Your task to perform on an android device: Go to privacy settings Image 0: 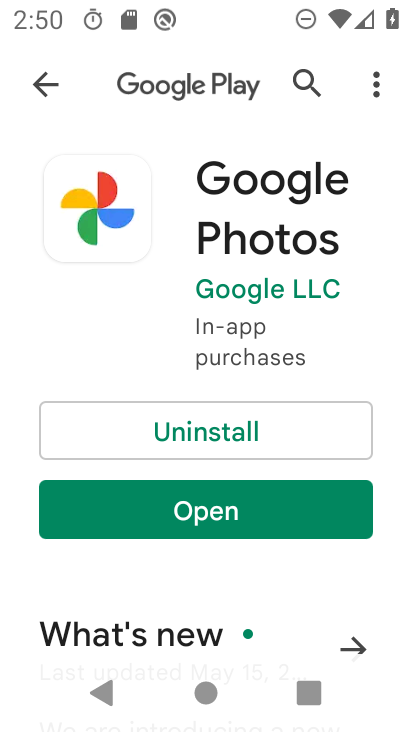
Step 0: press home button
Your task to perform on an android device: Go to privacy settings Image 1: 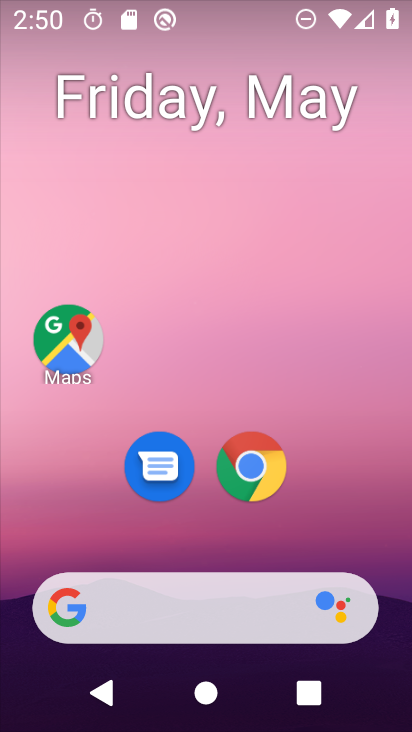
Step 1: drag from (341, 523) to (339, 49)
Your task to perform on an android device: Go to privacy settings Image 2: 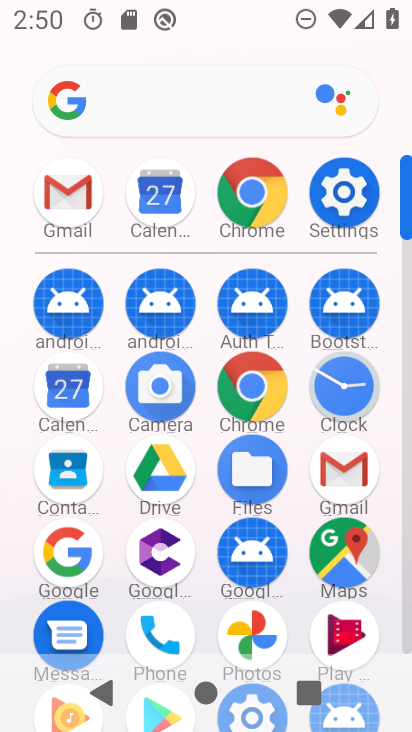
Step 2: click (345, 165)
Your task to perform on an android device: Go to privacy settings Image 3: 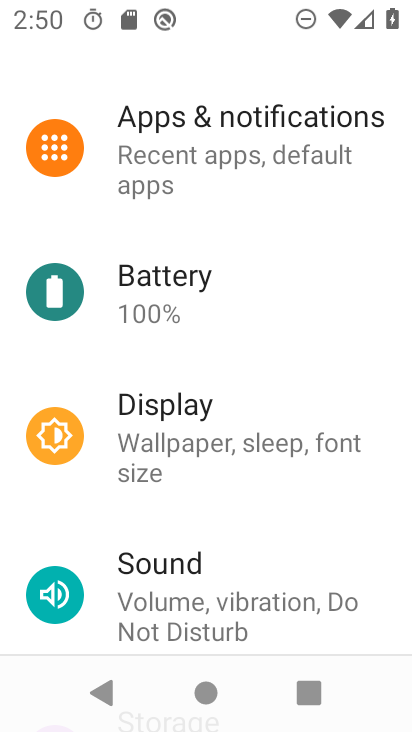
Step 3: drag from (277, 593) to (296, 147)
Your task to perform on an android device: Go to privacy settings Image 4: 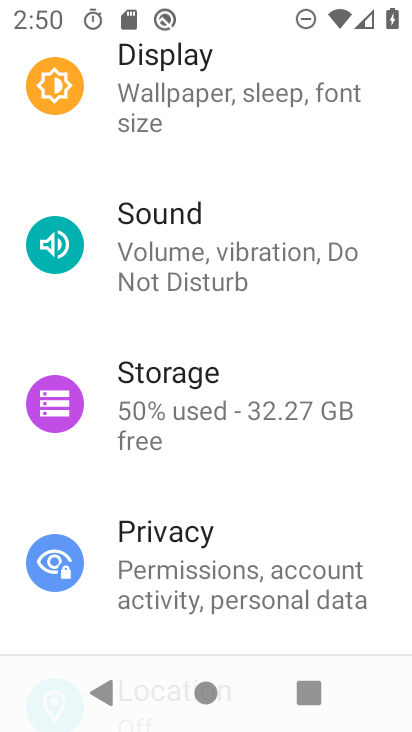
Step 4: click (237, 559)
Your task to perform on an android device: Go to privacy settings Image 5: 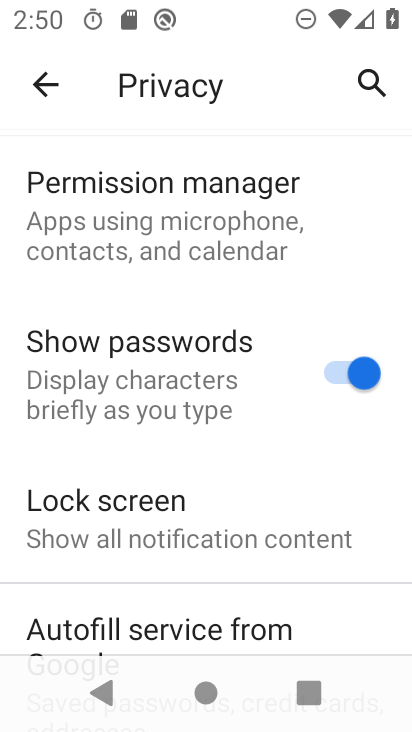
Step 5: task complete